Your task to perform on an android device: check battery use Image 0: 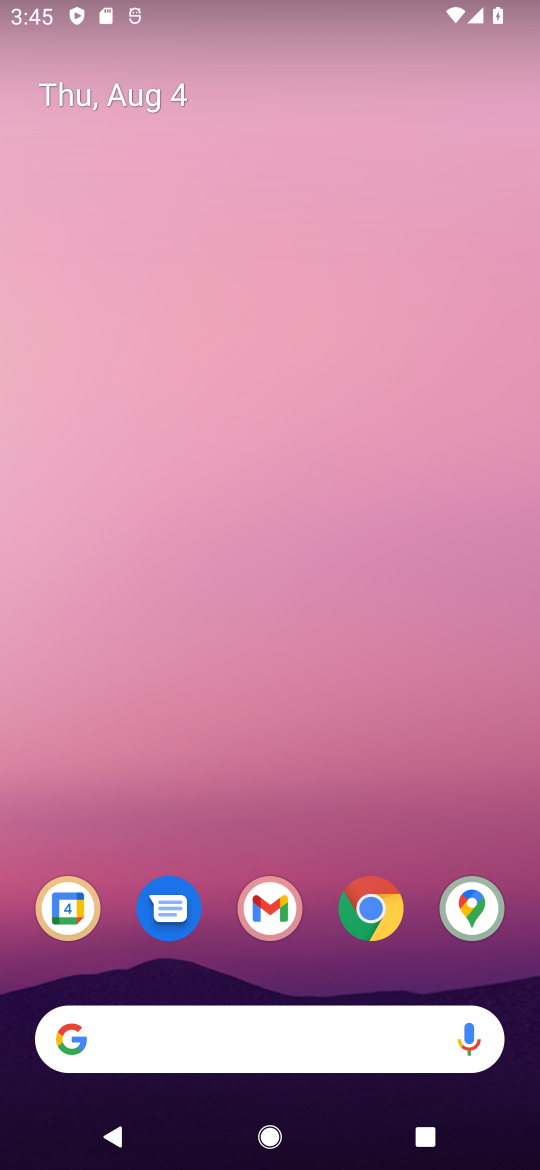
Step 0: drag from (315, 979) to (224, 169)
Your task to perform on an android device: check battery use Image 1: 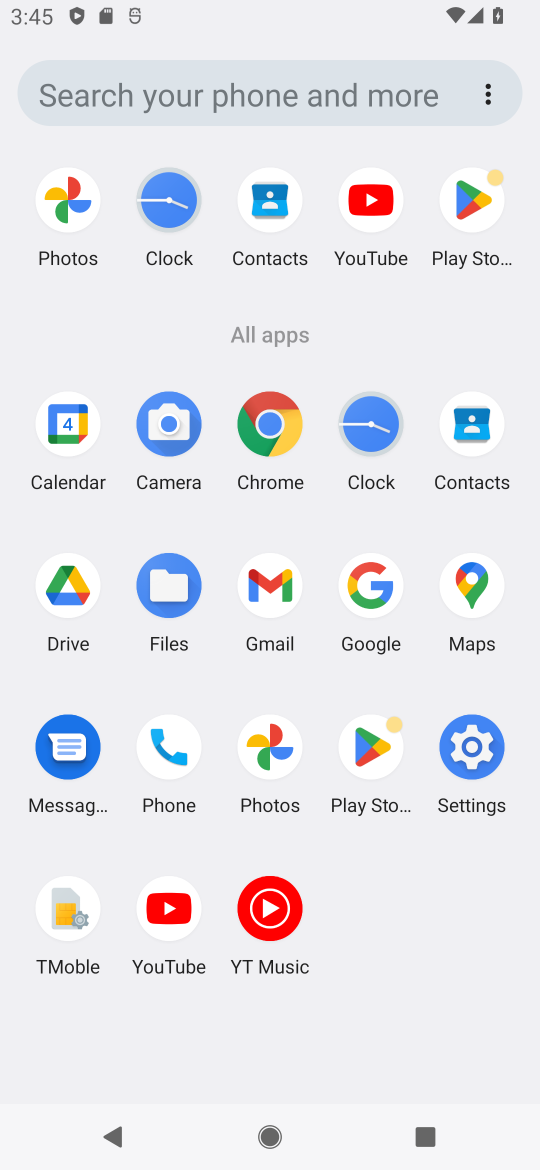
Step 1: click (475, 754)
Your task to perform on an android device: check battery use Image 2: 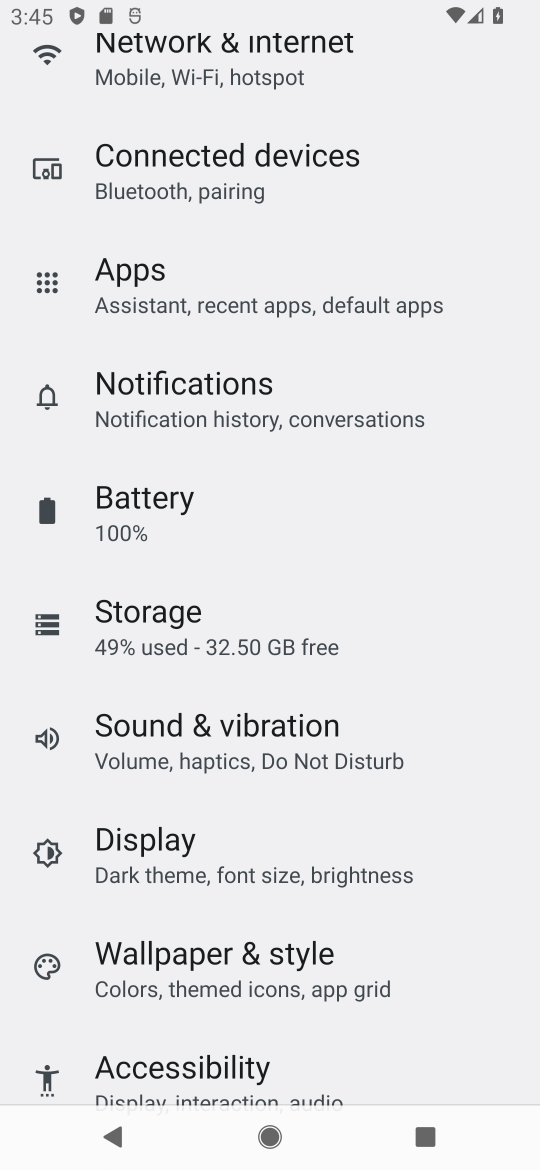
Step 2: click (205, 500)
Your task to perform on an android device: check battery use Image 3: 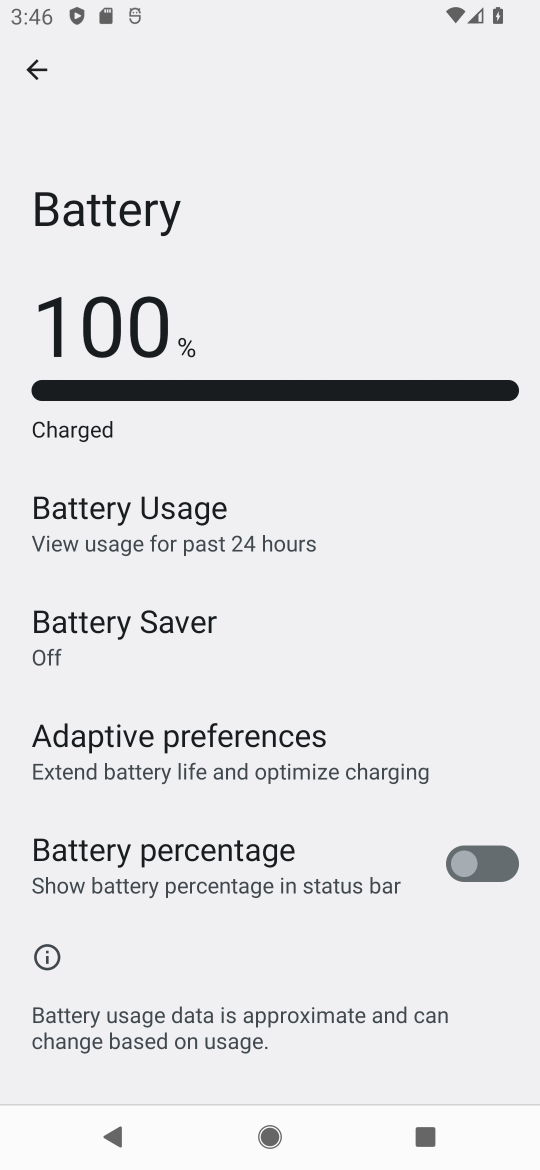
Step 3: click (253, 525)
Your task to perform on an android device: check battery use Image 4: 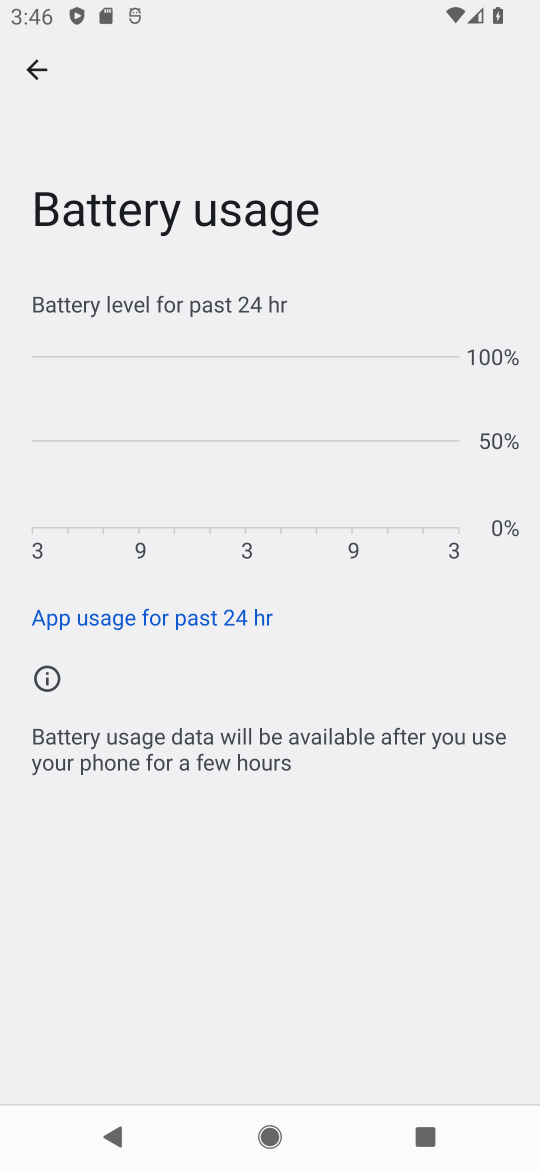
Step 4: task complete